Your task to perform on an android device: turn on the 12-hour format for clock Image 0: 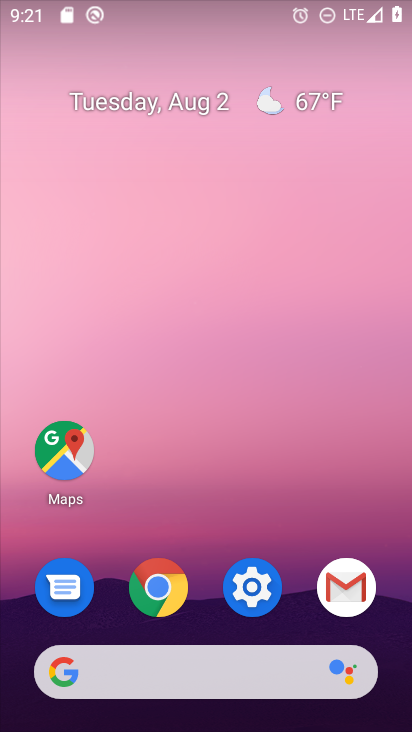
Step 0: click (163, 231)
Your task to perform on an android device: turn on the 12-hour format for clock Image 1: 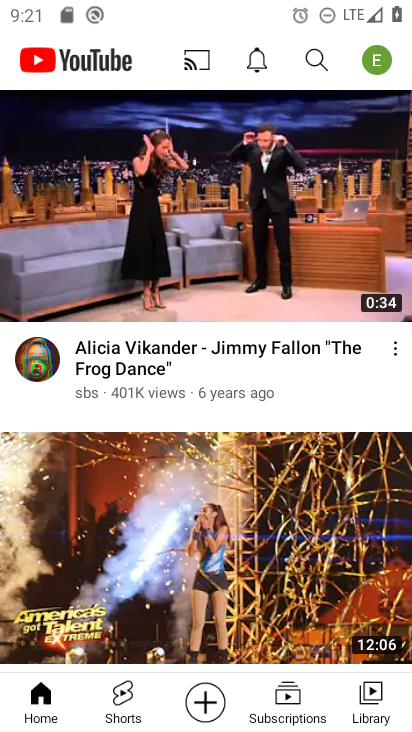
Step 1: press home button
Your task to perform on an android device: turn on the 12-hour format for clock Image 2: 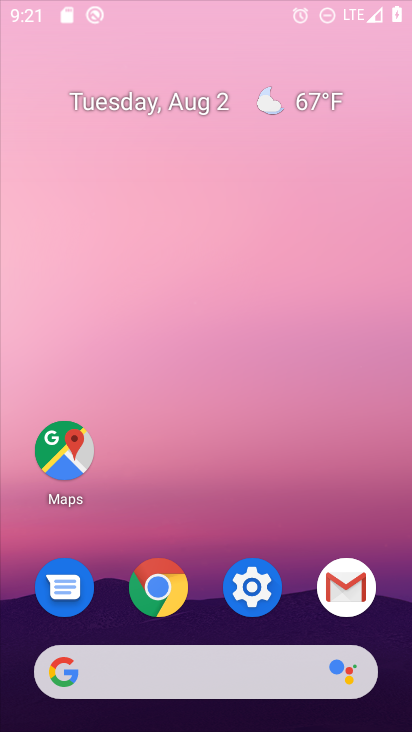
Step 2: press home button
Your task to perform on an android device: turn on the 12-hour format for clock Image 3: 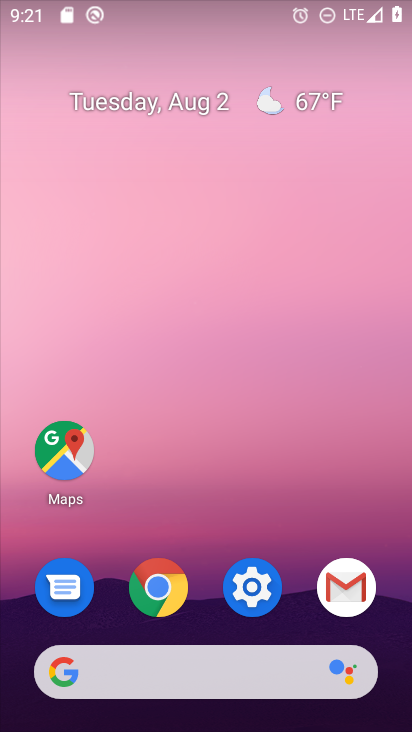
Step 3: drag from (218, 195) to (220, 140)
Your task to perform on an android device: turn on the 12-hour format for clock Image 4: 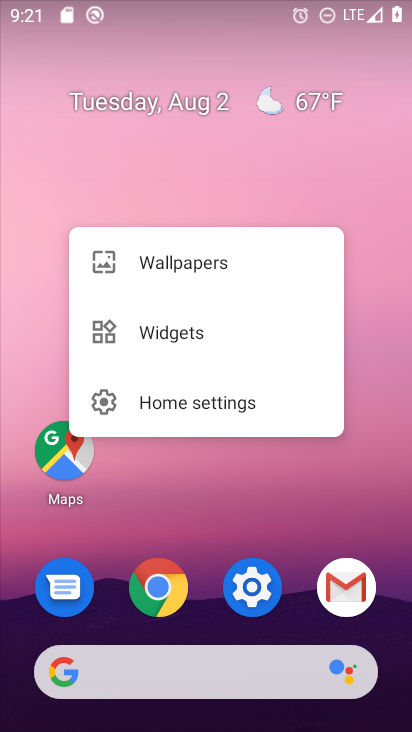
Step 4: click (230, 510)
Your task to perform on an android device: turn on the 12-hour format for clock Image 5: 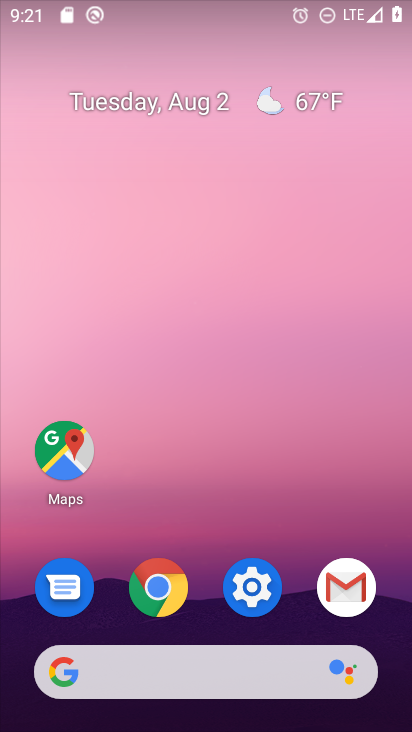
Step 5: drag from (250, 648) to (256, 114)
Your task to perform on an android device: turn on the 12-hour format for clock Image 6: 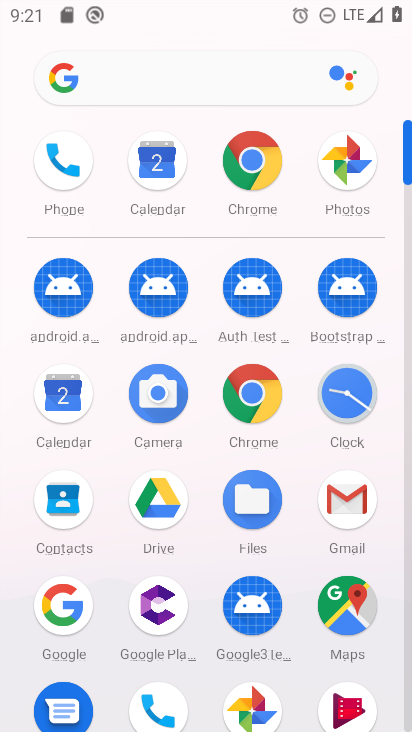
Step 6: drag from (263, 698) to (287, 542)
Your task to perform on an android device: turn on the 12-hour format for clock Image 7: 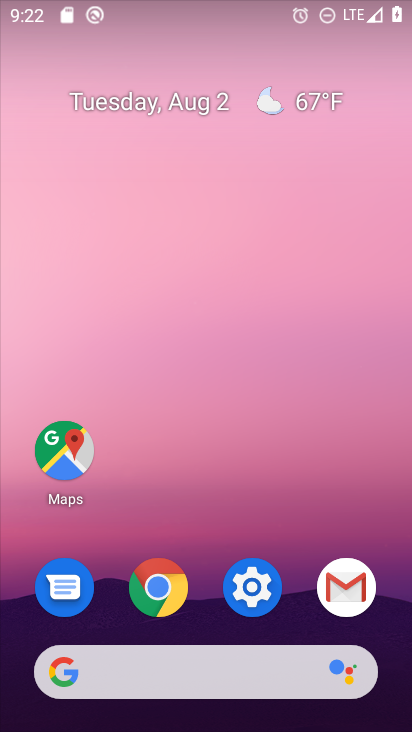
Step 7: drag from (206, 668) to (228, 188)
Your task to perform on an android device: turn on the 12-hour format for clock Image 8: 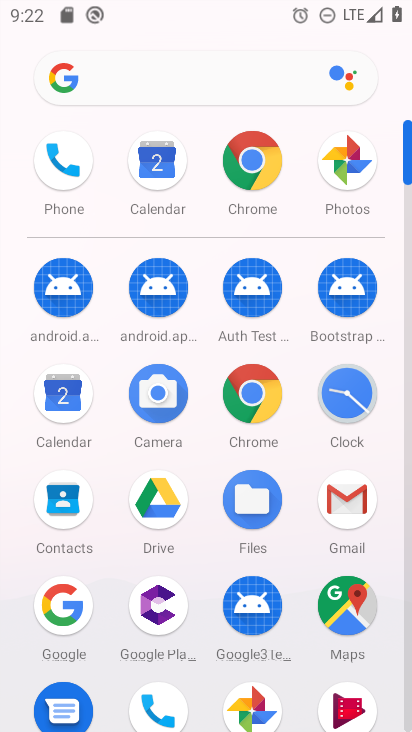
Step 8: click (335, 389)
Your task to perform on an android device: turn on the 12-hour format for clock Image 9: 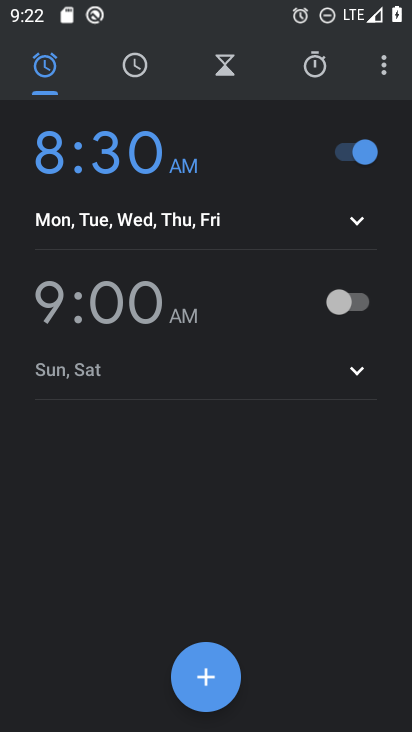
Step 9: click (379, 70)
Your task to perform on an android device: turn on the 12-hour format for clock Image 10: 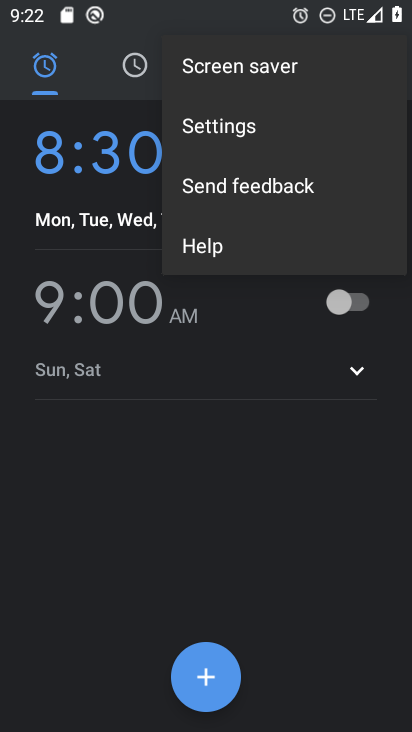
Step 10: click (252, 148)
Your task to perform on an android device: turn on the 12-hour format for clock Image 11: 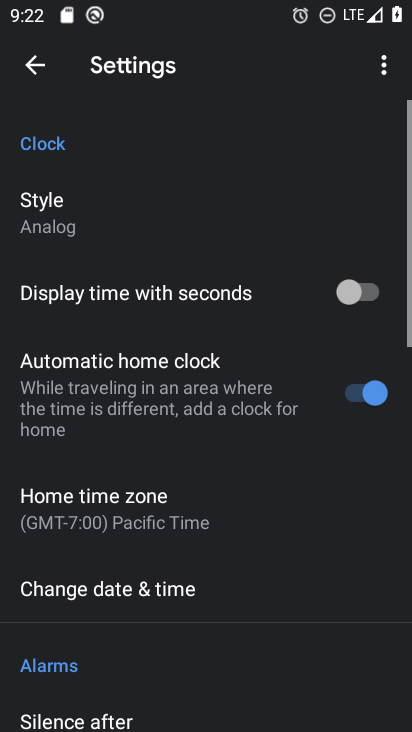
Step 11: click (178, 586)
Your task to perform on an android device: turn on the 12-hour format for clock Image 12: 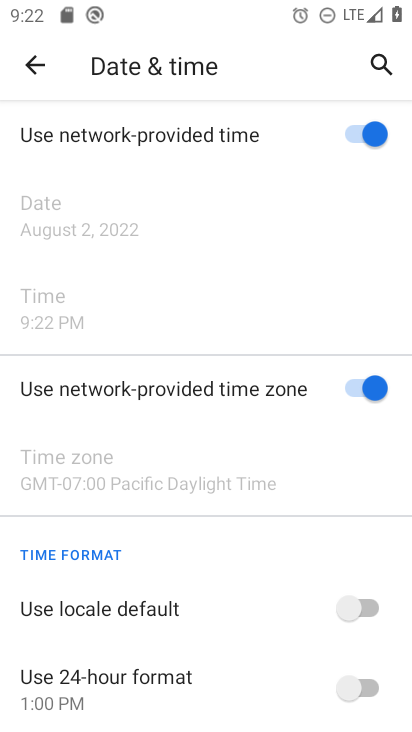
Step 12: click (378, 681)
Your task to perform on an android device: turn on the 12-hour format for clock Image 13: 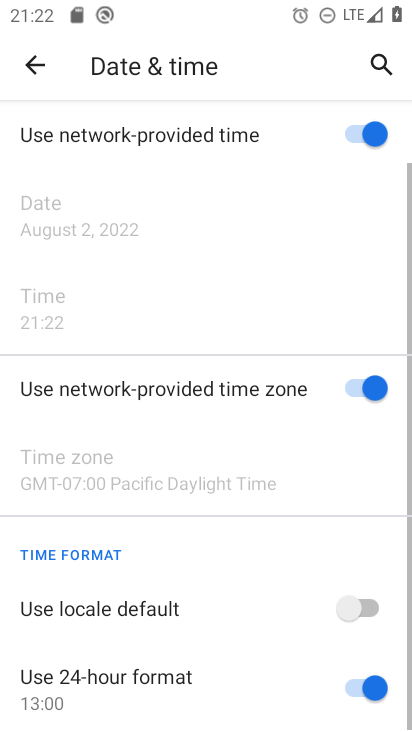
Step 13: click (378, 681)
Your task to perform on an android device: turn on the 12-hour format for clock Image 14: 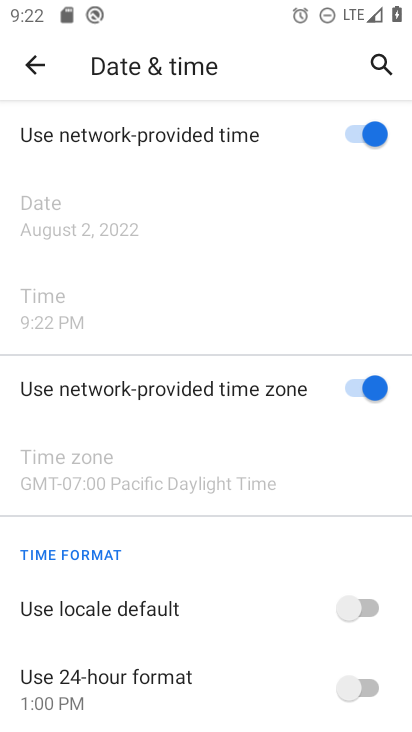
Step 14: task complete